Your task to perform on an android device: Open Google Maps Image 0: 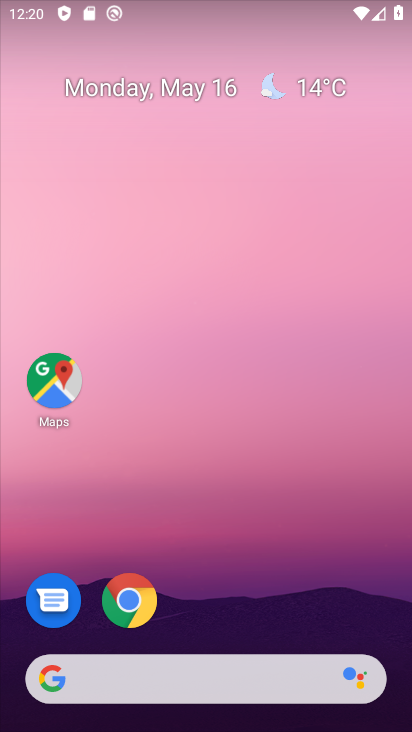
Step 0: click (60, 387)
Your task to perform on an android device: Open Google Maps Image 1: 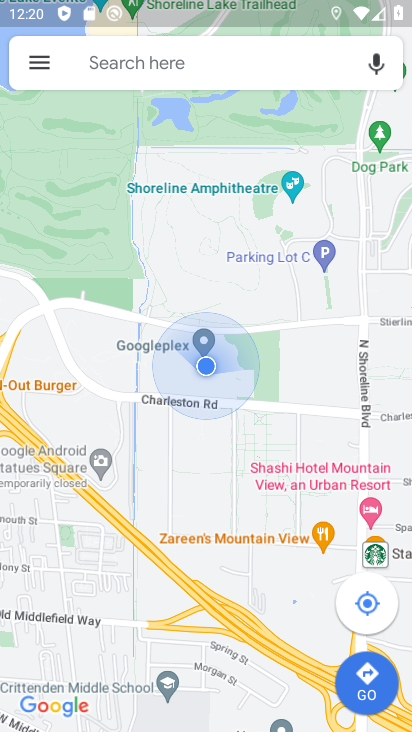
Step 1: task complete